Your task to perform on an android device: Show me productivity apps on the Play Store Image 0: 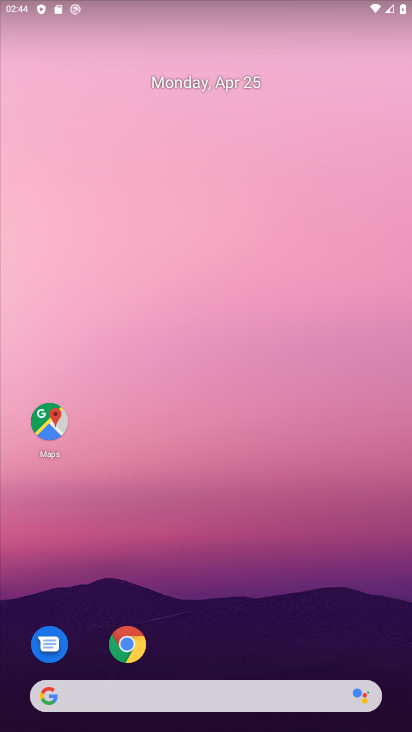
Step 0: drag from (271, 628) to (255, 0)
Your task to perform on an android device: Show me productivity apps on the Play Store Image 1: 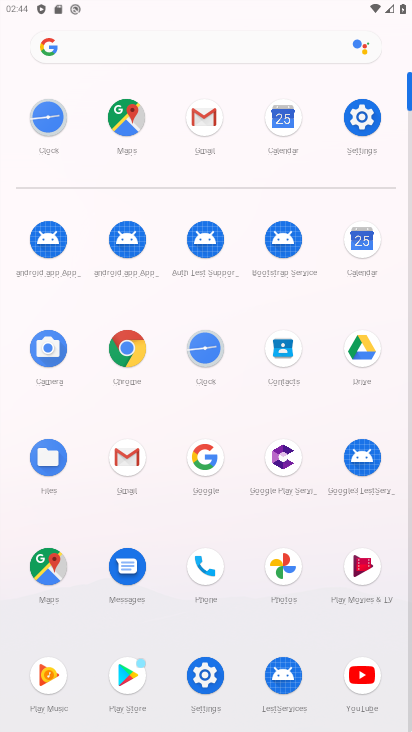
Step 1: click (133, 677)
Your task to perform on an android device: Show me productivity apps on the Play Store Image 2: 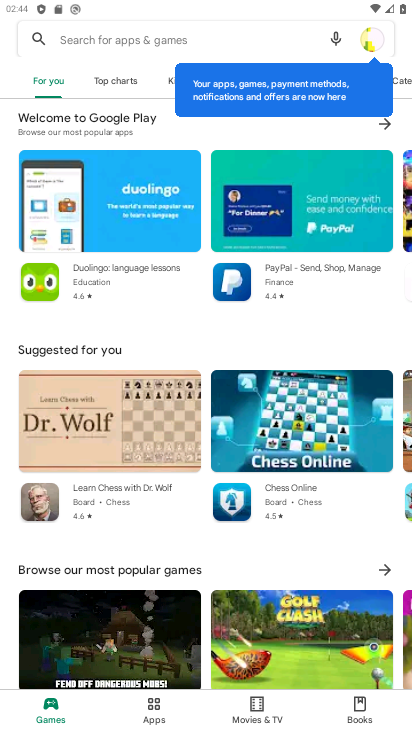
Step 2: click (117, 87)
Your task to perform on an android device: Show me productivity apps on the Play Store Image 3: 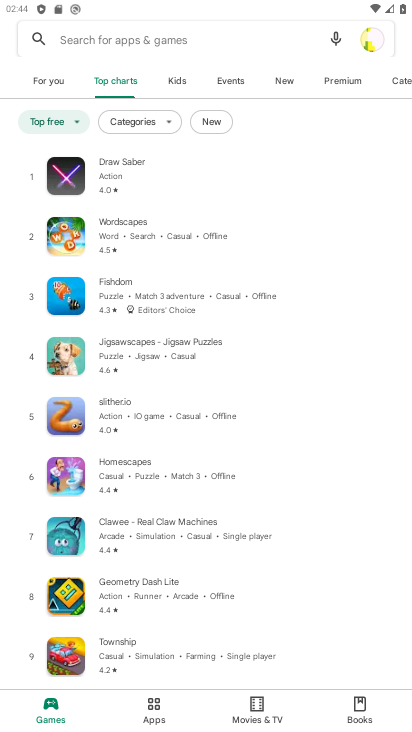
Step 3: click (136, 123)
Your task to perform on an android device: Show me productivity apps on the Play Store Image 4: 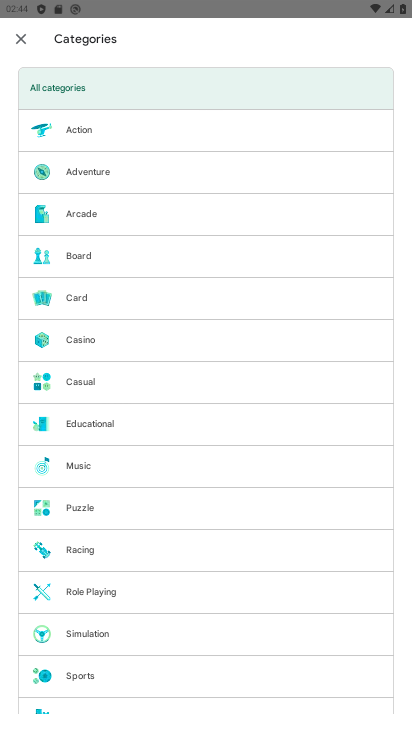
Step 4: drag from (212, 580) to (163, 111)
Your task to perform on an android device: Show me productivity apps on the Play Store Image 5: 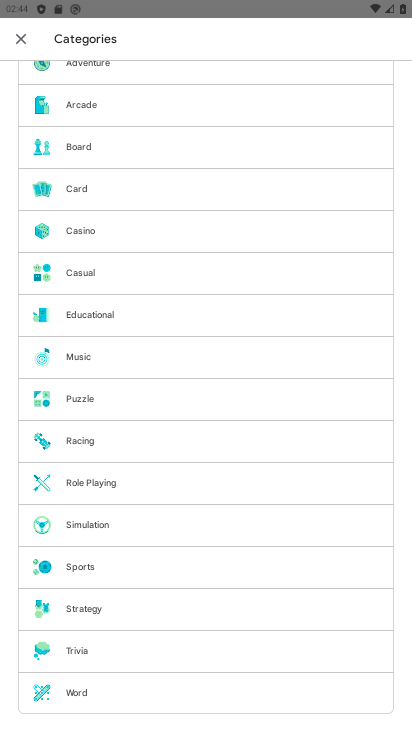
Step 5: drag from (212, 607) to (210, 103)
Your task to perform on an android device: Show me productivity apps on the Play Store Image 6: 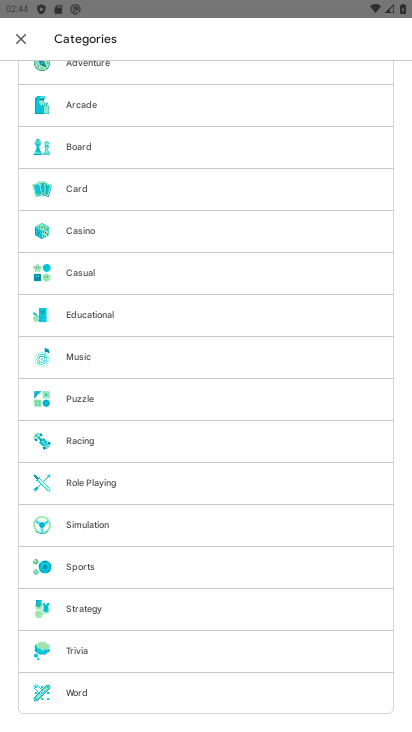
Step 6: drag from (219, 608) to (213, 294)
Your task to perform on an android device: Show me productivity apps on the Play Store Image 7: 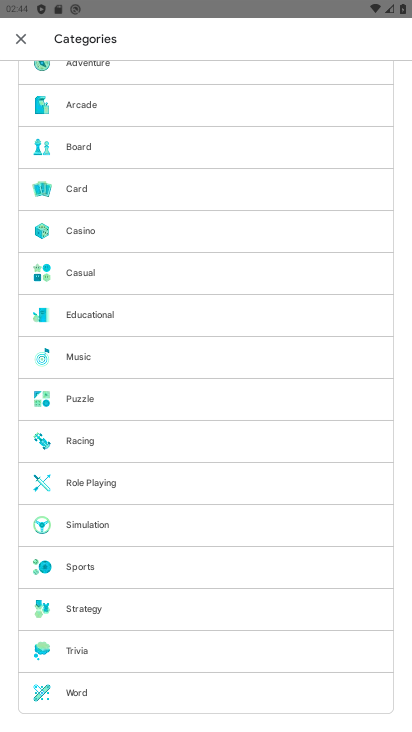
Step 7: drag from (208, 652) to (249, 190)
Your task to perform on an android device: Show me productivity apps on the Play Store Image 8: 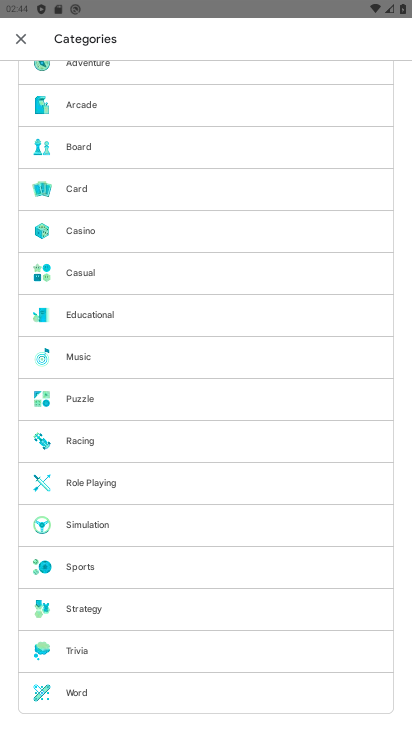
Step 8: click (15, 44)
Your task to perform on an android device: Show me productivity apps on the Play Store Image 9: 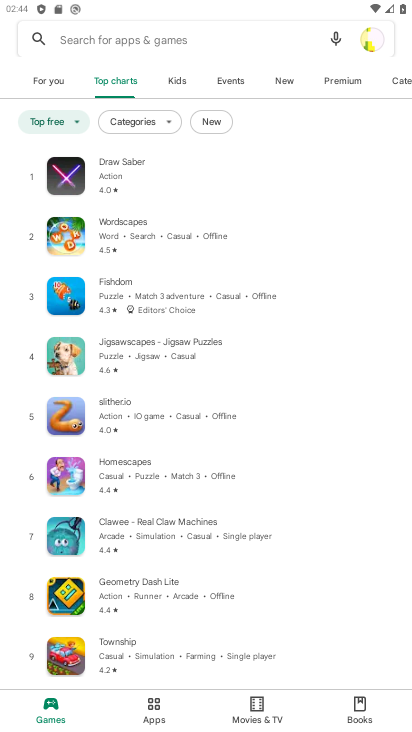
Step 9: click (149, 711)
Your task to perform on an android device: Show me productivity apps on the Play Store Image 10: 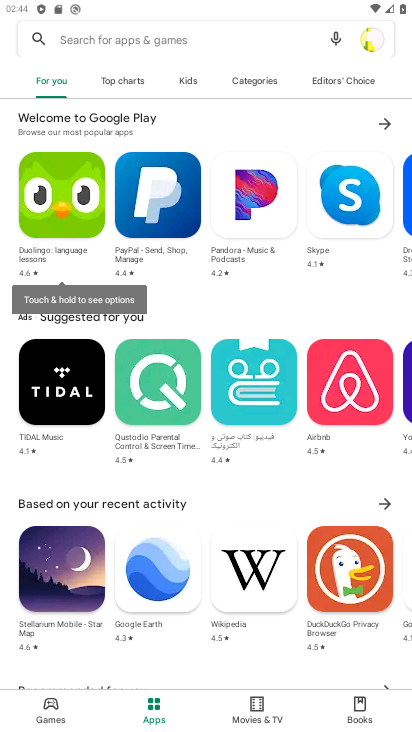
Step 10: click (114, 73)
Your task to perform on an android device: Show me productivity apps on the Play Store Image 11: 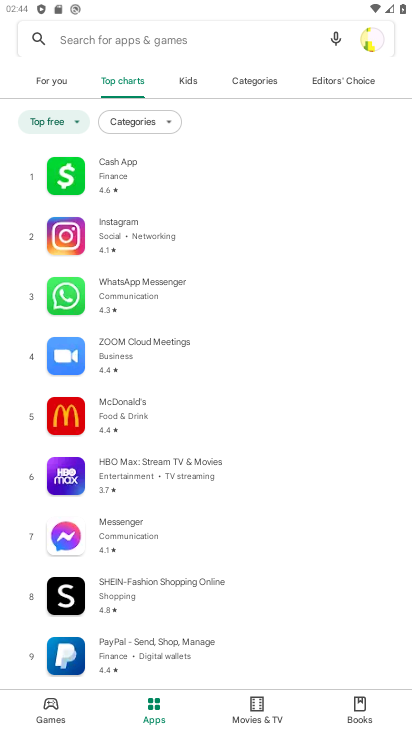
Step 11: click (162, 130)
Your task to perform on an android device: Show me productivity apps on the Play Store Image 12: 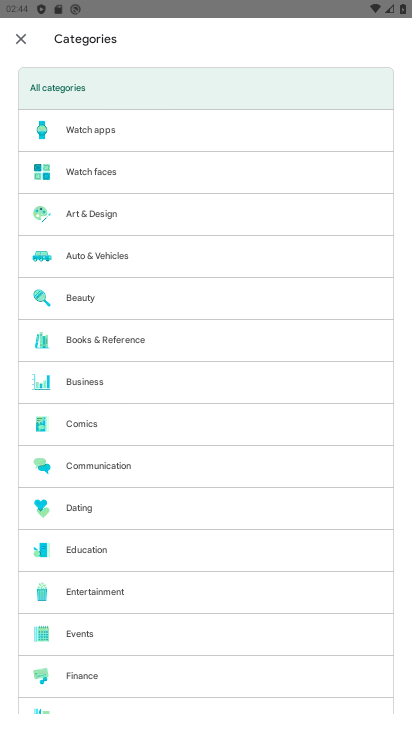
Step 12: drag from (179, 644) to (199, 245)
Your task to perform on an android device: Show me productivity apps on the Play Store Image 13: 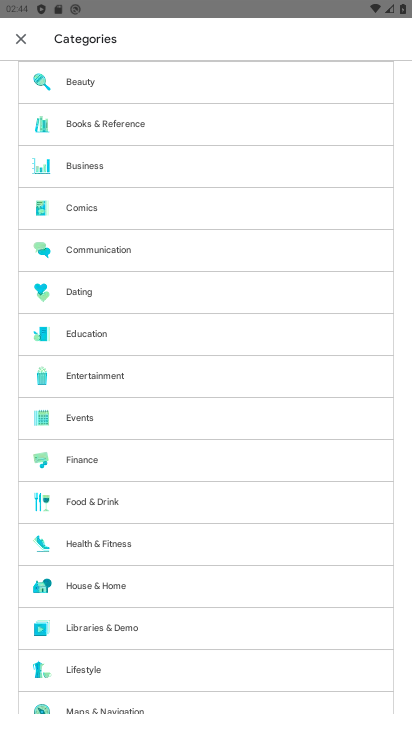
Step 13: drag from (192, 683) to (198, 268)
Your task to perform on an android device: Show me productivity apps on the Play Store Image 14: 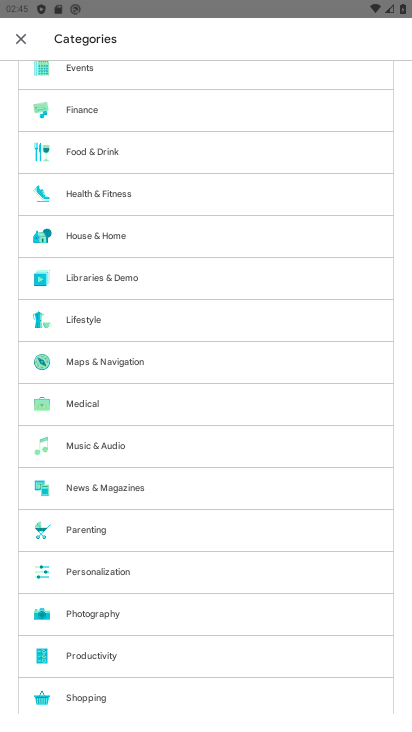
Step 14: click (141, 660)
Your task to perform on an android device: Show me productivity apps on the Play Store Image 15: 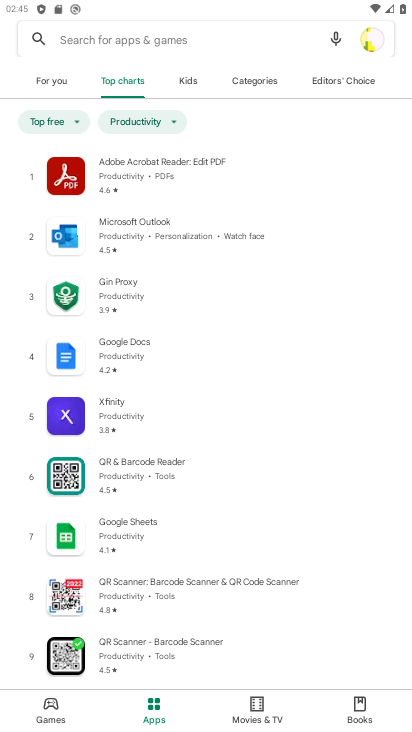
Step 15: task complete